Your task to perform on an android device: Do I have any events tomorrow? Image 0: 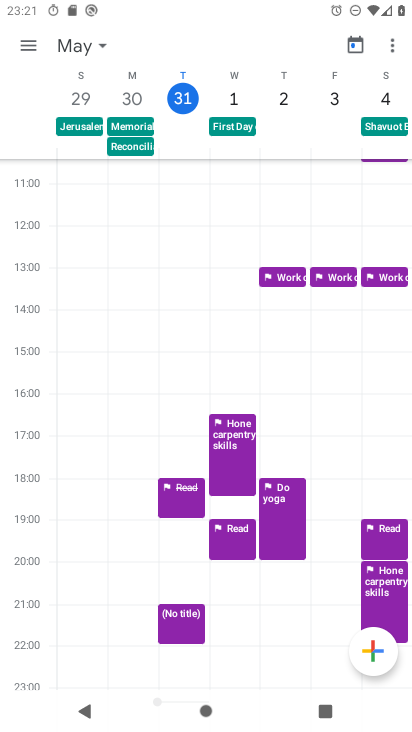
Step 0: press home button
Your task to perform on an android device: Do I have any events tomorrow? Image 1: 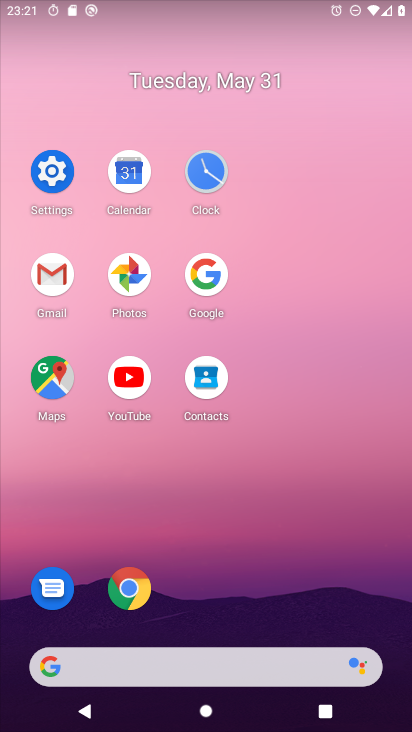
Step 1: click (133, 175)
Your task to perform on an android device: Do I have any events tomorrow? Image 2: 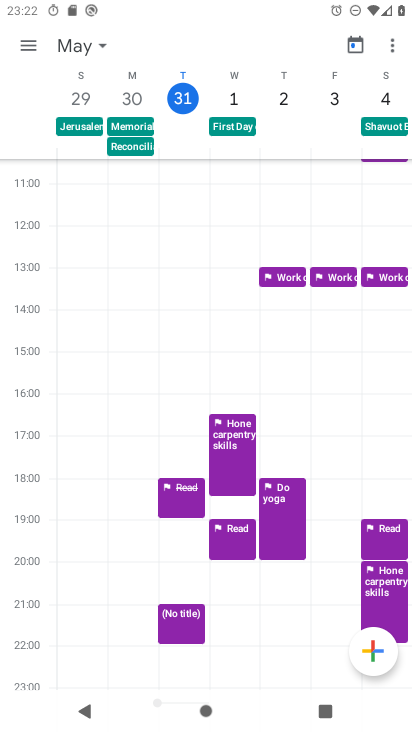
Step 2: click (237, 89)
Your task to perform on an android device: Do I have any events tomorrow? Image 3: 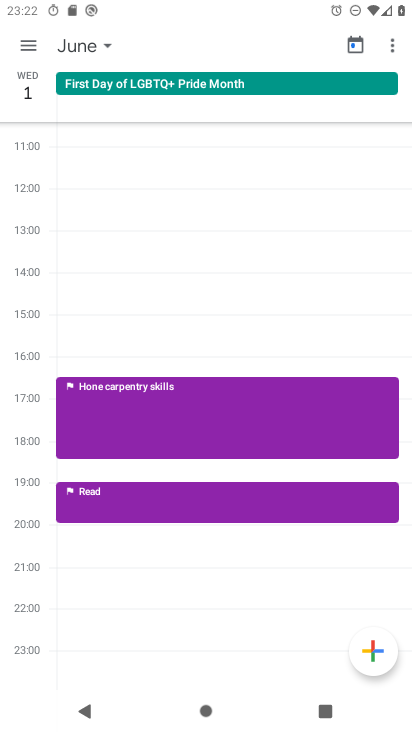
Step 3: task complete